Your task to perform on an android device: Go to wifi settings Image 0: 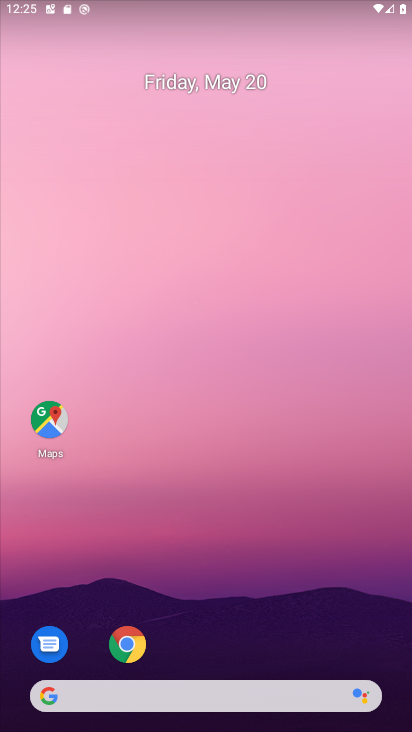
Step 0: drag from (196, 678) to (196, 249)
Your task to perform on an android device: Go to wifi settings Image 1: 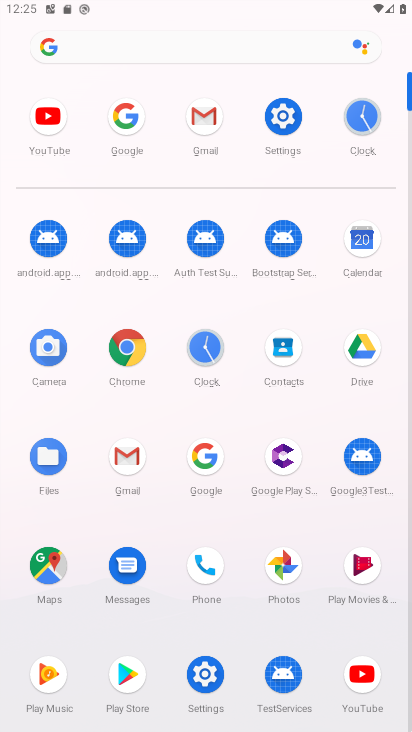
Step 1: click (275, 113)
Your task to perform on an android device: Go to wifi settings Image 2: 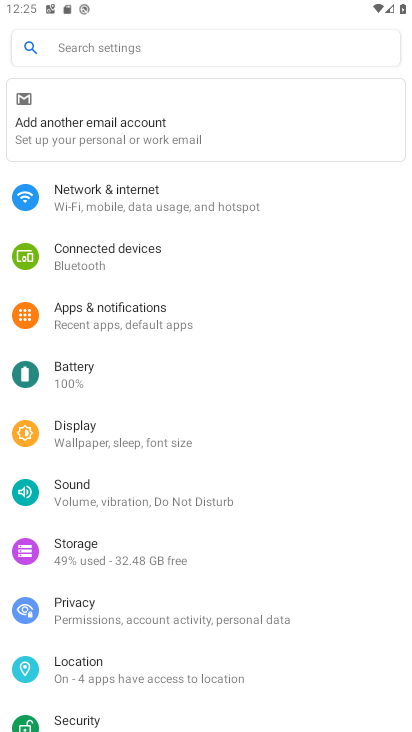
Step 2: click (122, 198)
Your task to perform on an android device: Go to wifi settings Image 3: 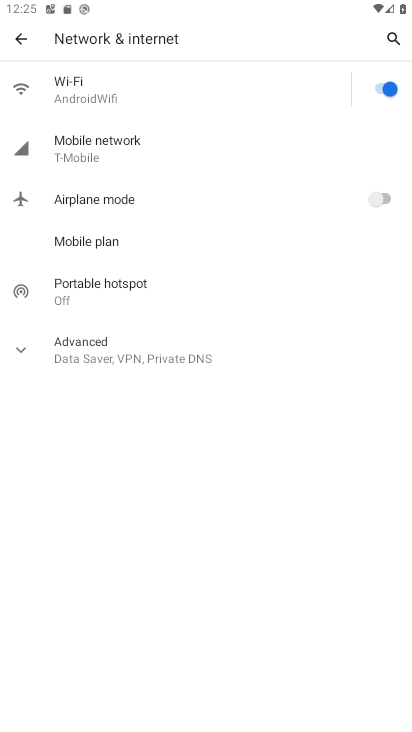
Step 3: click (102, 88)
Your task to perform on an android device: Go to wifi settings Image 4: 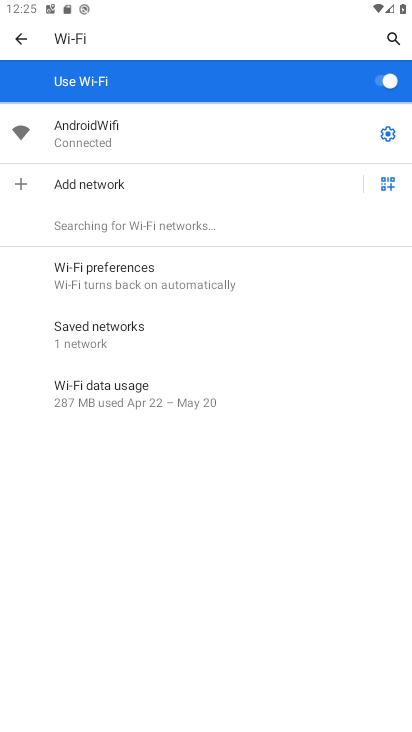
Step 4: click (383, 130)
Your task to perform on an android device: Go to wifi settings Image 5: 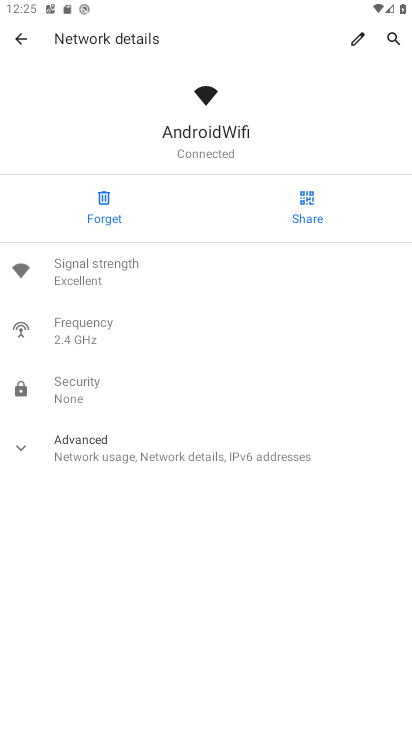
Step 5: click (92, 454)
Your task to perform on an android device: Go to wifi settings Image 6: 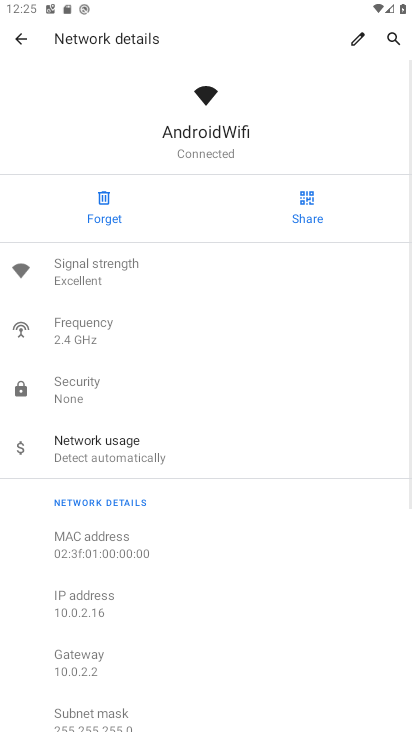
Step 6: task complete